Your task to perform on an android device: Go to location settings Image 0: 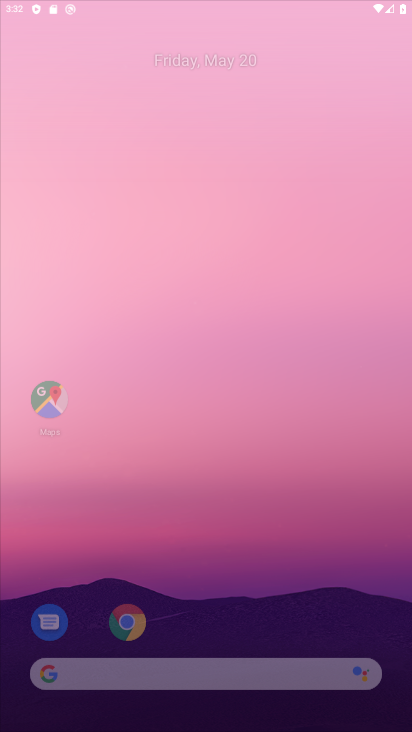
Step 0: drag from (237, 593) to (303, 132)
Your task to perform on an android device: Go to location settings Image 1: 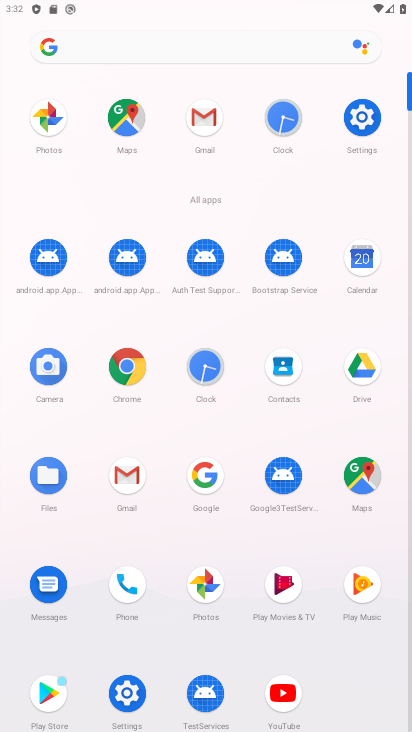
Step 1: click (372, 121)
Your task to perform on an android device: Go to location settings Image 2: 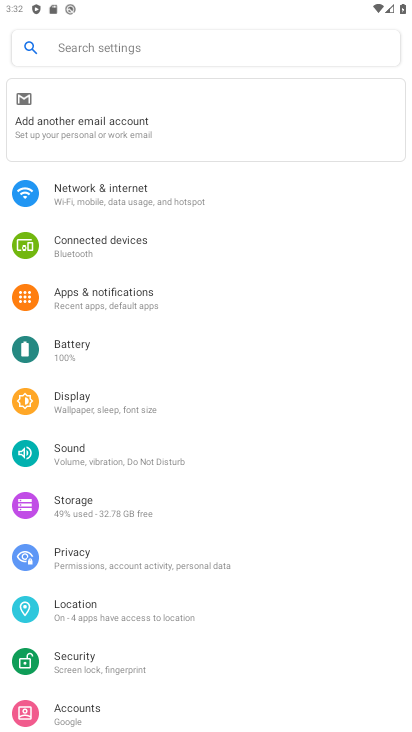
Step 2: drag from (98, 506) to (146, 257)
Your task to perform on an android device: Go to location settings Image 3: 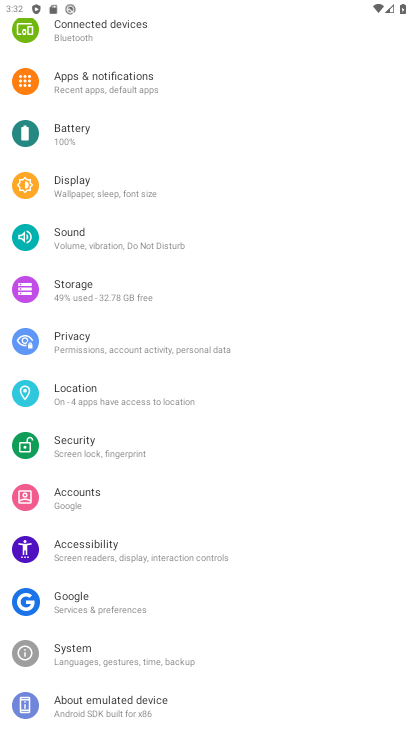
Step 3: click (115, 394)
Your task to perform on an android device: Go to location settings Image 4: 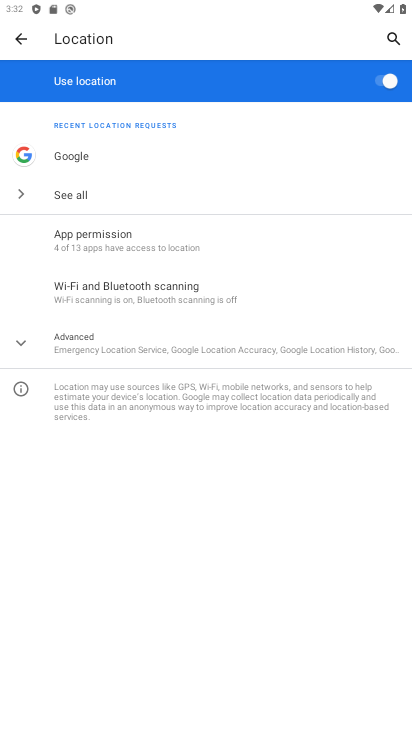
Step 4: task complete